Your task to perform on an android device: open sync settings in chrome Image 0: 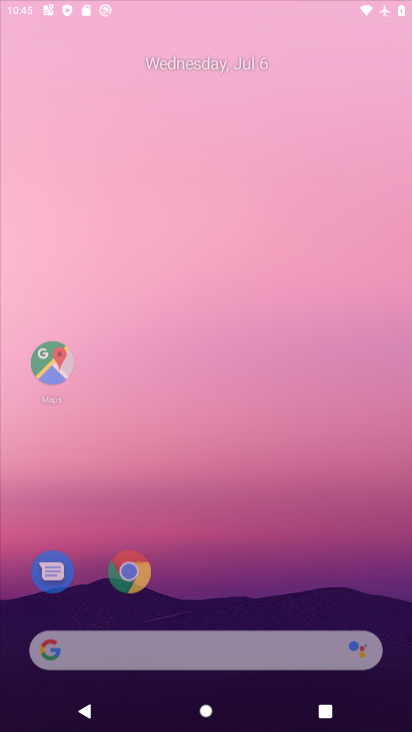
Step 0: click (275, 147)
Your task to perform on an android device: open sync settings in chrome Image 1: 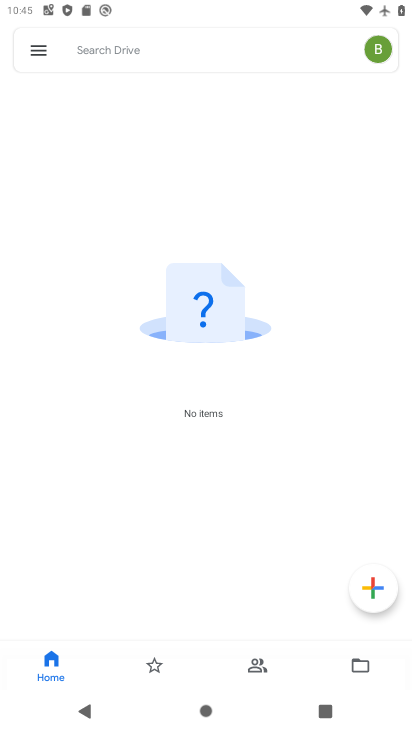
Step 1: press home button
Your task to perform on an android device: open sync settings in chrome Image 2: 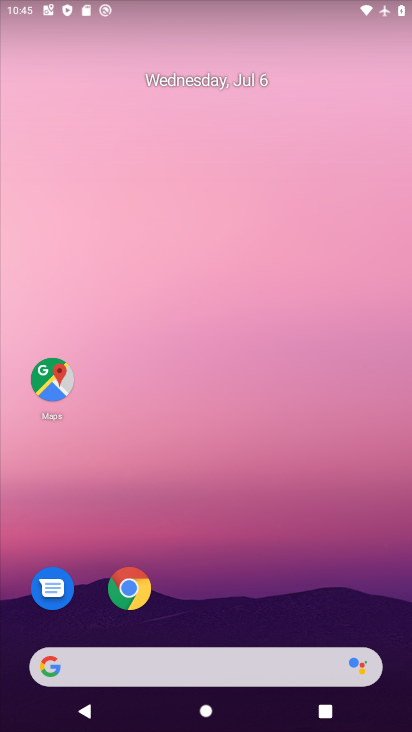
Step 2: drag from (218, 662) to (227, 202)
Your task to perform on an android device: open sync settings in chrome Image 3: 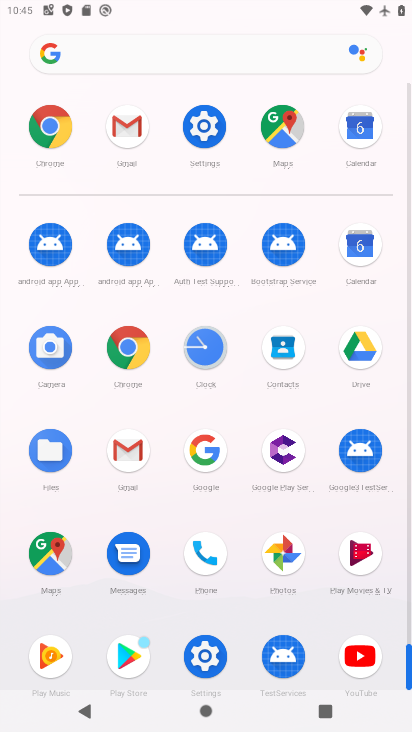
Step 3: click (45, 130)
Your task to perform on an android device: open sync settings in chrome Image 4: 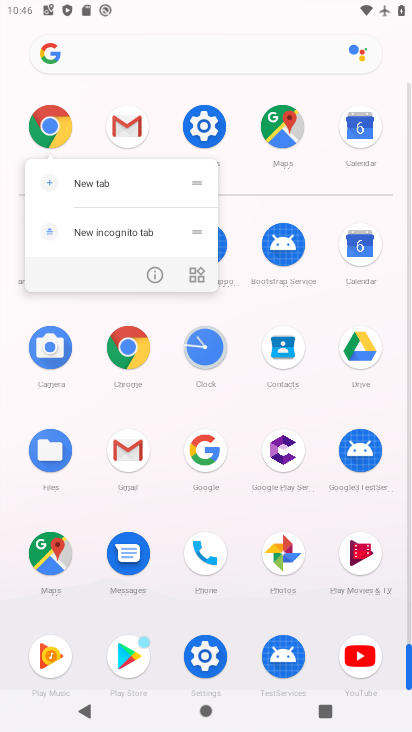
Step 4: click (45, 130)
Your task to perform on an android device: open sync settings in chrome Image 5: 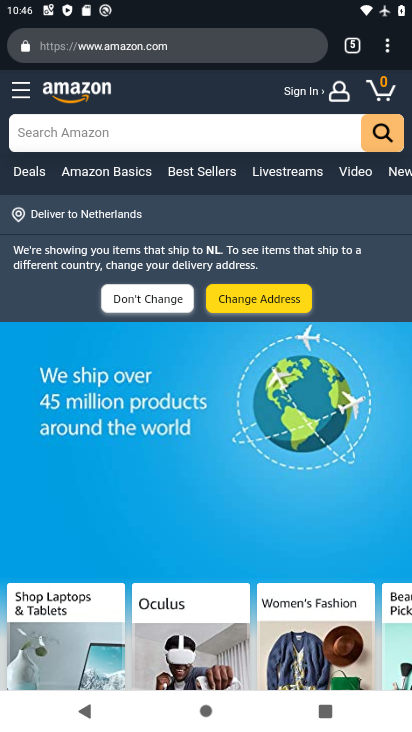
Step 5: click (388, 47)
Your task to perform on an android device: open sync settings in chrome Image 6: 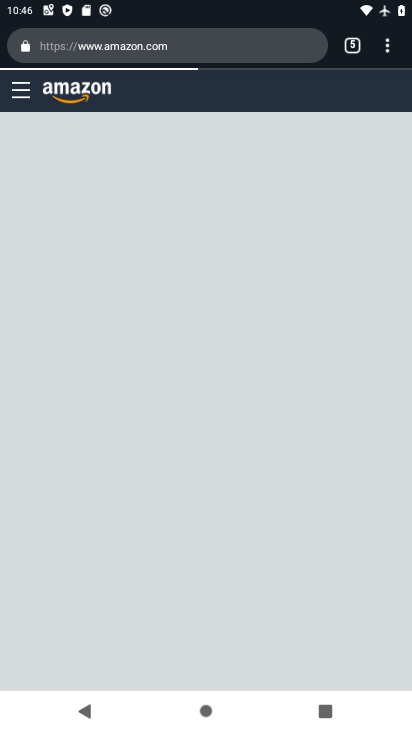
Step 6: click (388, 52)
Your task to perform on an android device: open sync settings in chrome Image 7: 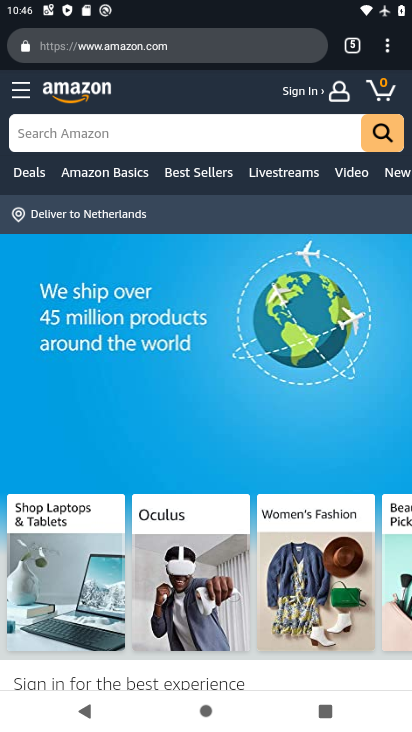
Step 7: click (388, 54)
Your task to perform on an android device: open sync settings in chrome Image 8: 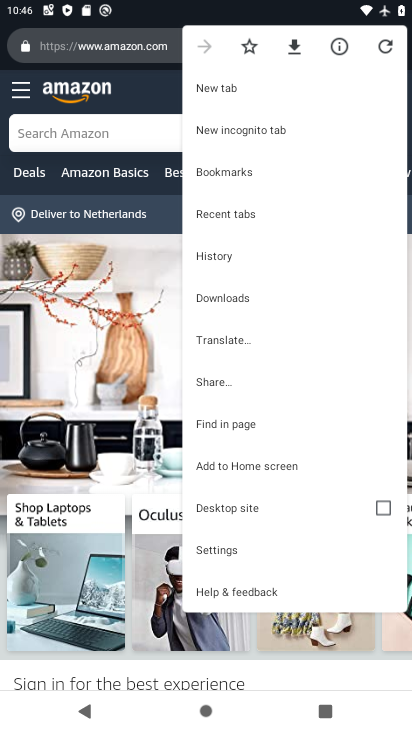
Step 8: click (200, 551)
Your task to perform on an android device: open sync settings in chrome Image 9: 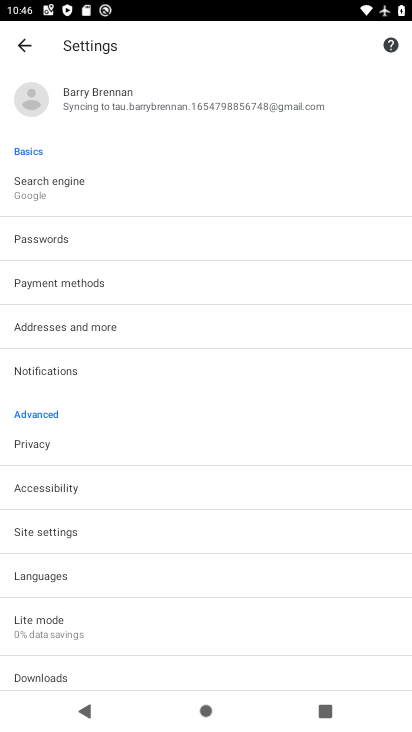
Step 9: click (132, 91)
Your task to perform on an android device: open sync settings in chrome Image 10: 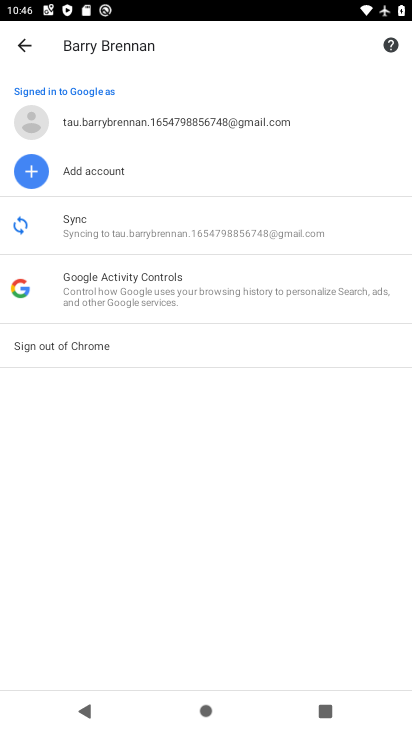
Step 10: click (116, 231)
Your task to perform on an android device: open sync settings in chrome Image 11: 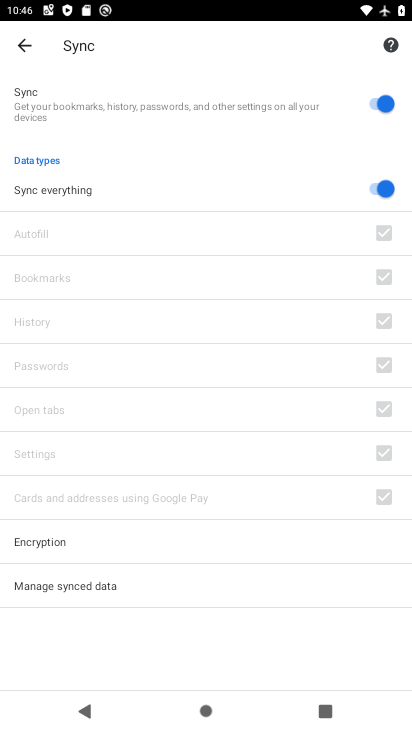
Step 11: task complete